Your task to perform on an android device: turn notification dots off Image 0: 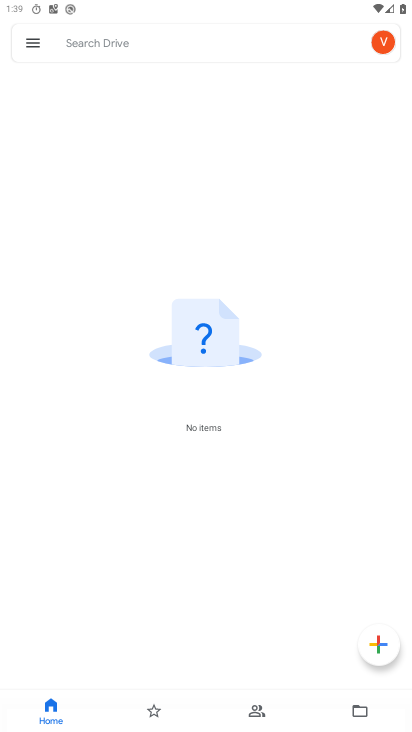
Step 0: press home button
Your task to perform on an android device: turn notification dots off Image 1: 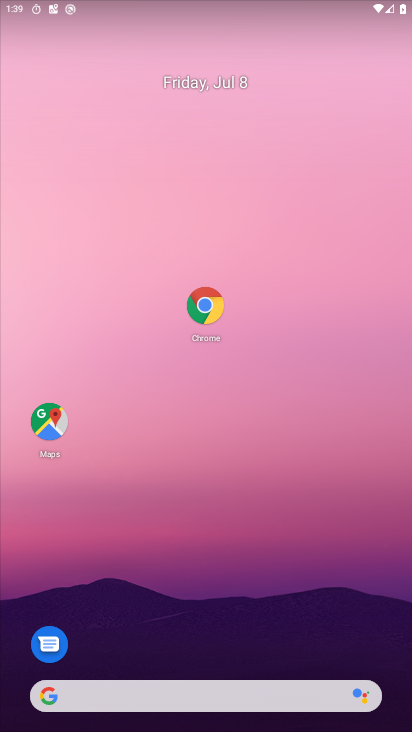
Step 1: drag from (222, 634) to (274, 173)
Your task to perform on an android device: turn notification dots off Image 2: 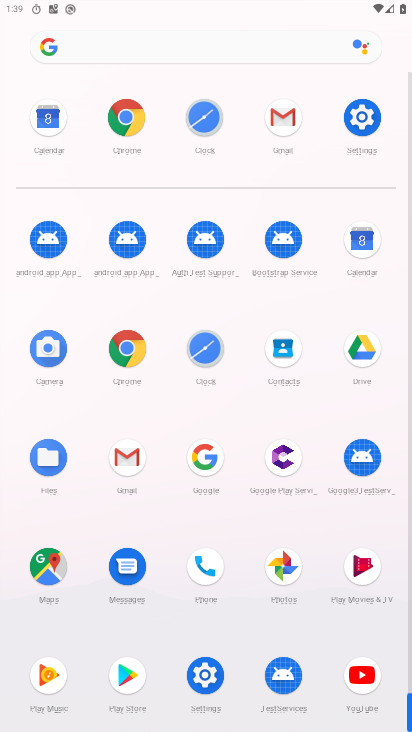
Step 2: click (361, 126)
Your task to perform on an android device: turn notification dots off Image 3: 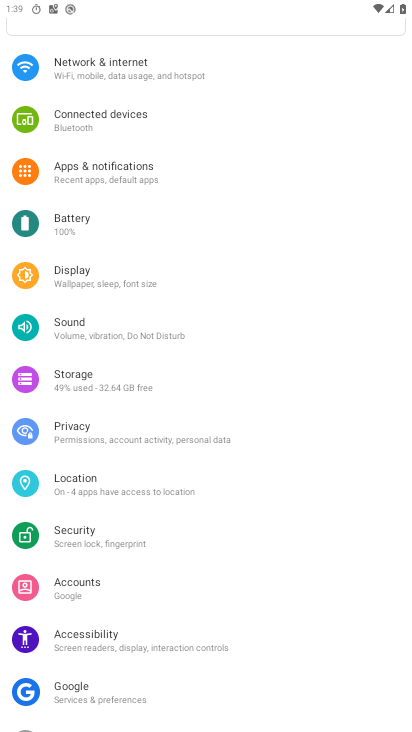
Step 3: click (92, 170)
Your task to perform on an android device: turn notification dots off Image 4: 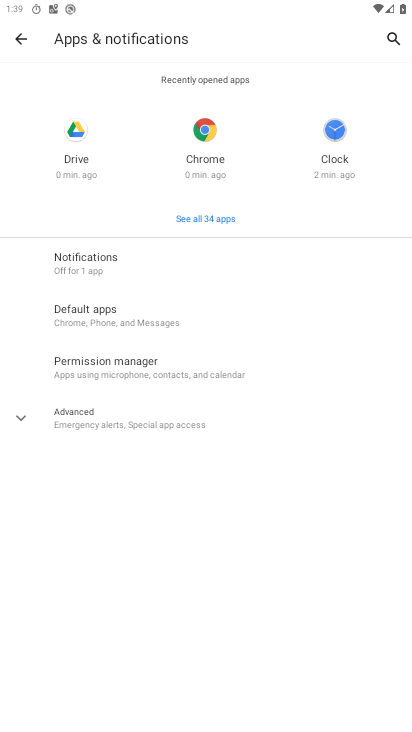
Step 4: click (97, 418)
Your task to perform on an android device: turn notification dots off Image 5: 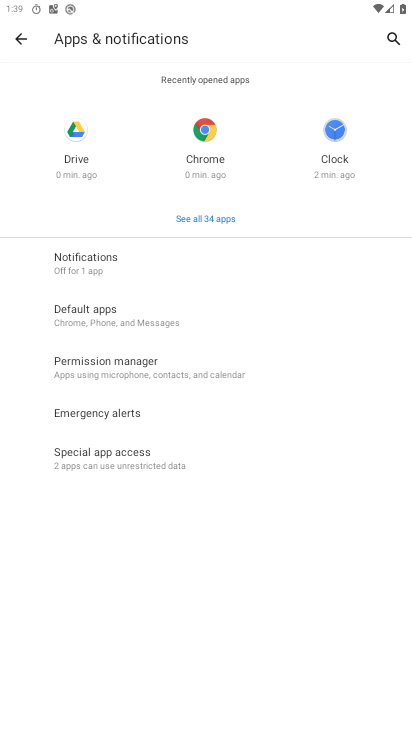
Step 5: click (77, 264)
Your task to perform on an android device: turn notification dots off Image 6: 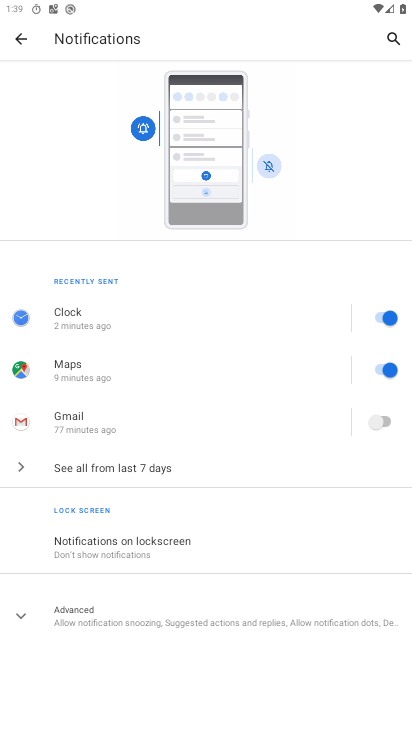
Step 6: click (70, 617)
Your task to perform on an android device: turn notification dots off Image 7: 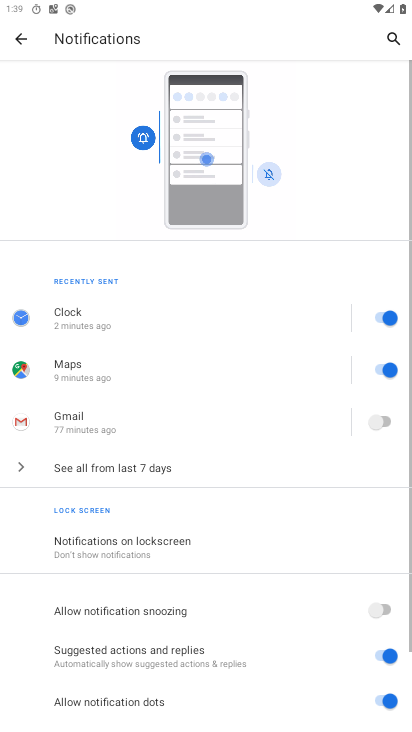
Step 7: drag from (204, 705) to (268, 363)
Your task to perform on an android device: turn notification dots off Image 8: 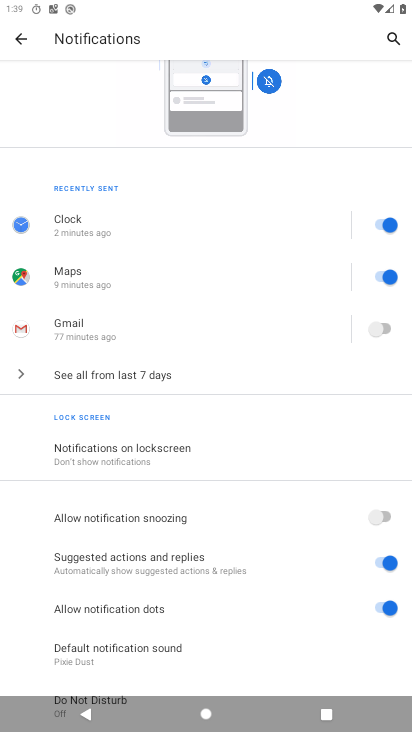
Step 8: click (376, 606)
Your task to perform on an android device: turn notification dots off Image 9: 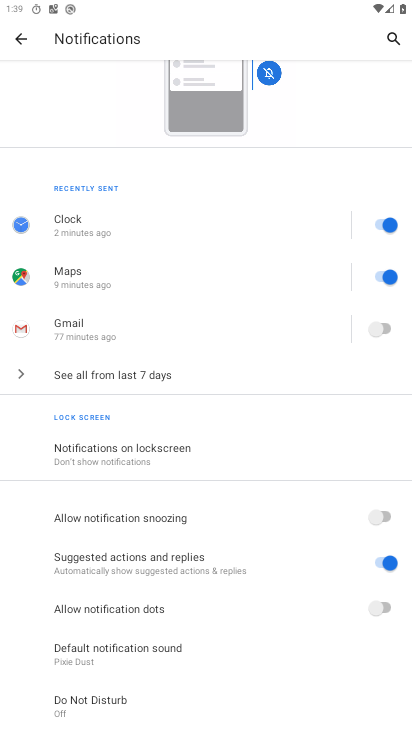
Step 9: task complete